Your task to perform on an android device: Toggle the flashlight Image 0: 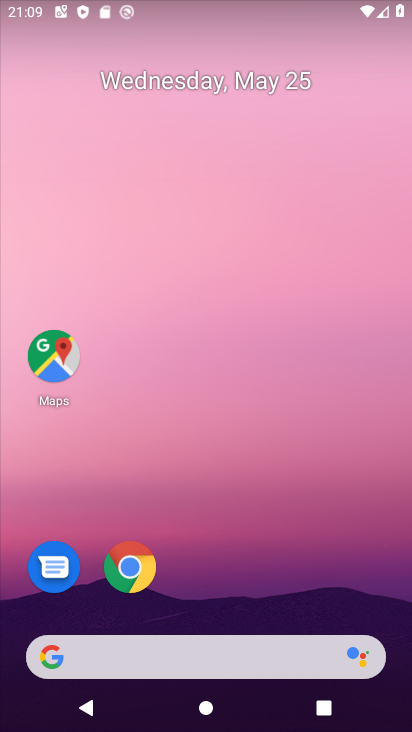
Step 0: drag from (268, 561) to (302, 66)
Your task to perform on an android device: Toggle the flashlight Image 1: 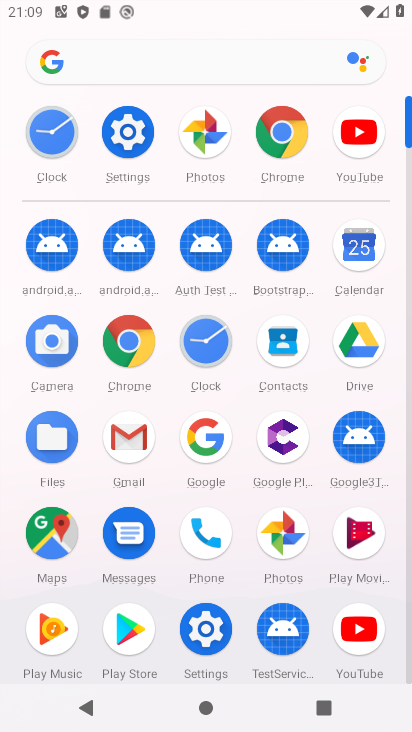
Step 1: click (141, 120)
Your task to perform on an android device: Toggle the flashlight Image 2: 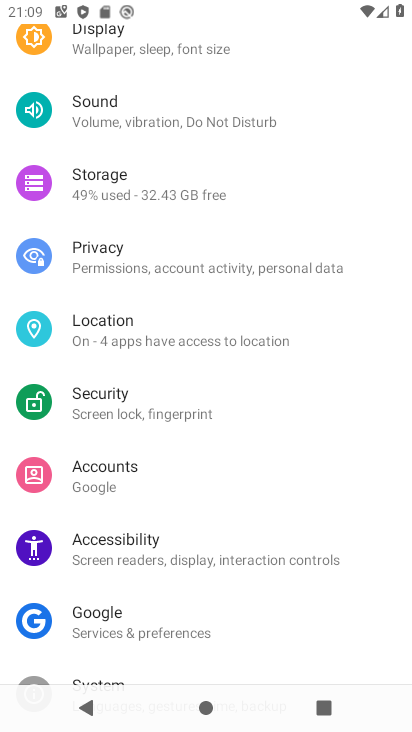
Step 2: drag from (168, 167) to (182, 728)
Your task to perform on an android device: Toggle the flashlight Image 3: 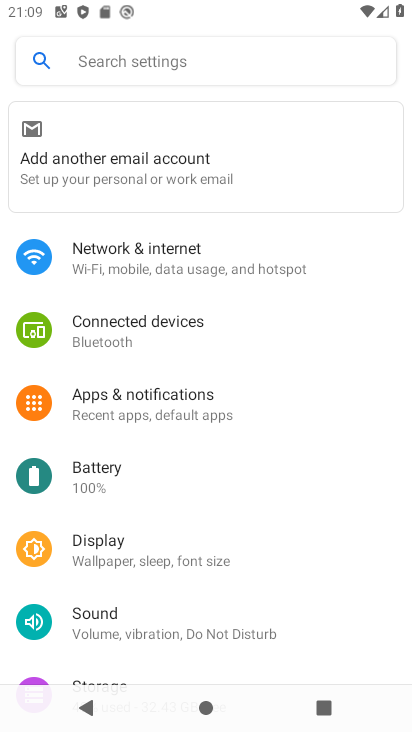
Step 3: click (295, 58)
Your task to perform on an android device: Toggle the flashlight Image 4: 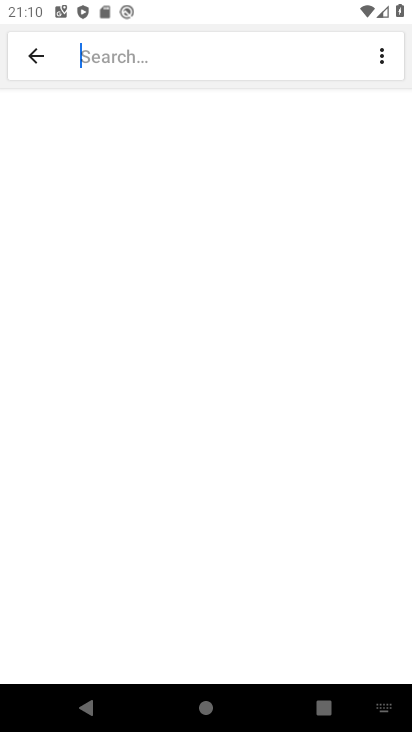
Step 4: type "Flashlight"
Your task to perform on an android device: Toggle the flashlight Image 5: 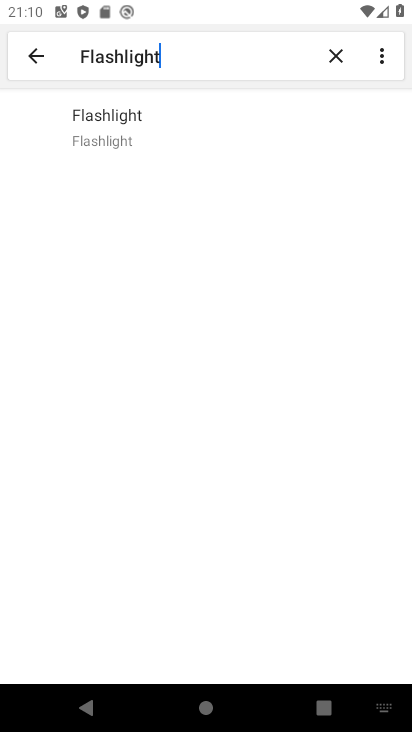
Step 5: click (99, 128)
Your task to perform on an android device: Toggle the flashlight Image 6: 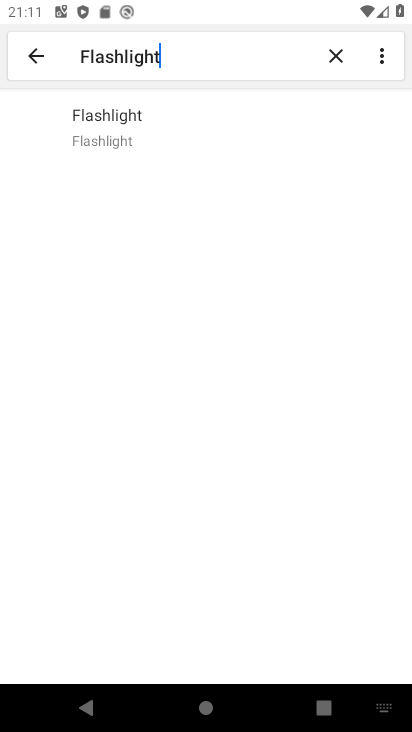
Step 6: task complete